Your task to perform on an android device: remove spam from my inbox in the gmail app Image 0: 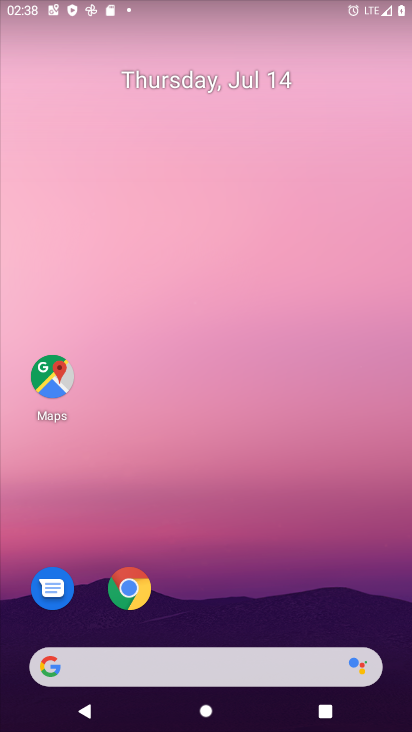
Step 0: drag from (252, 645) to (261, 103)
Your task to perform on an android device: remove spam from my inbox in the gmail app Image 1: 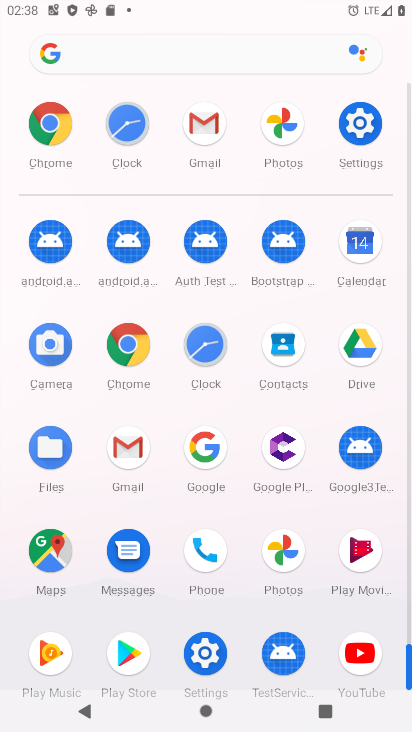
Step 1: click (202, 101)
Your task to perform on an android device: remove spam from my inbox in the gmail app Image 2: 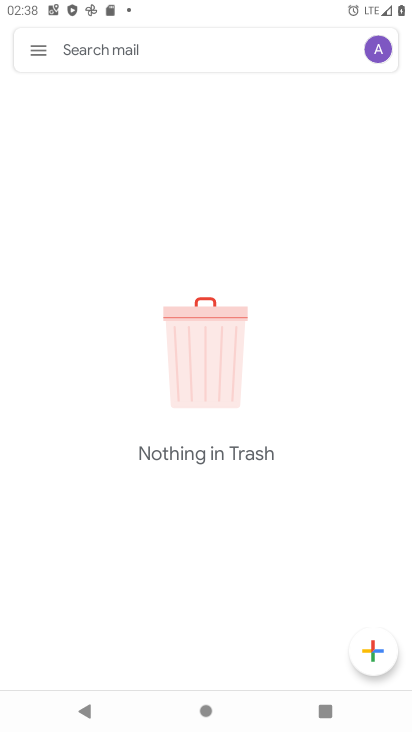
Step 2: click (41, 56)
Your task to perform on an android device: remove spam from my inbox in the gmail app Image 3: 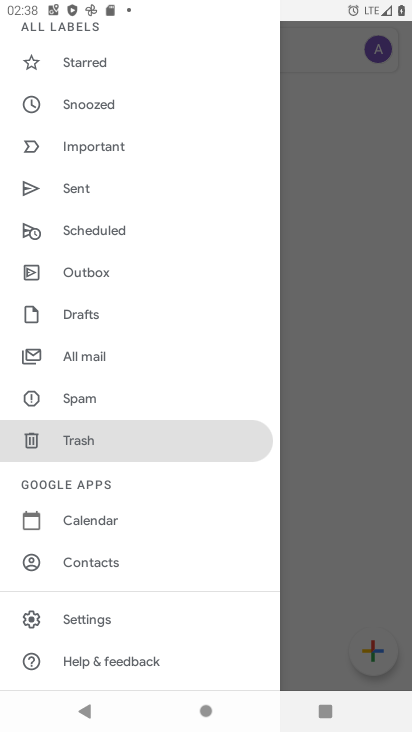
Step 3: click (104, 401)
Your task to perform on an android device: remove spam from my inbox in the gmail app Image 4: 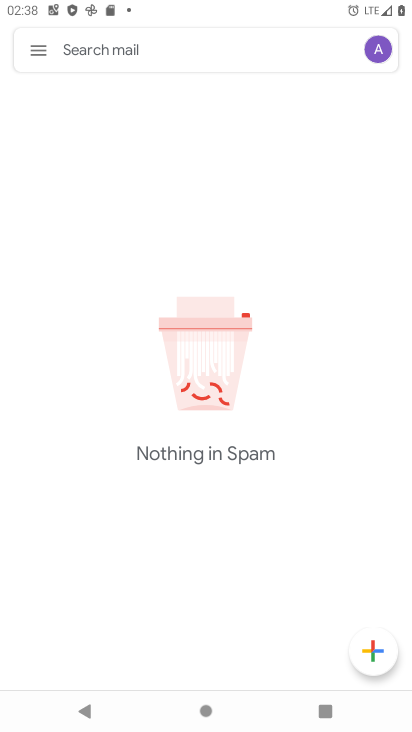
Step 4: task complete